Your task to perform on an android device: open wifi settings Image 0: 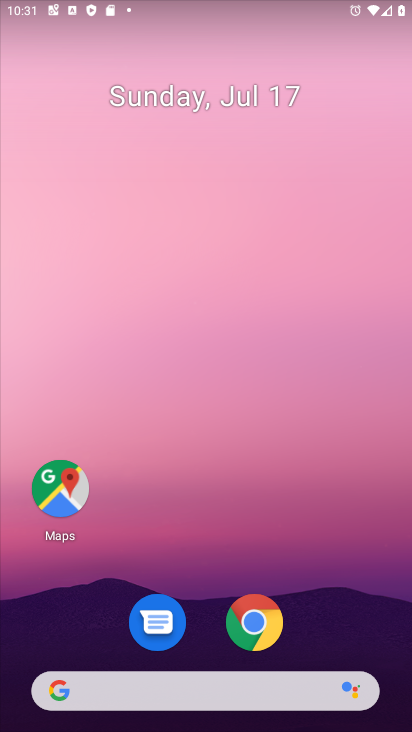
Step 0: drag from (109, 725) to (164, 80)
Your task to perform on an android device: open wifi settings Image 1: 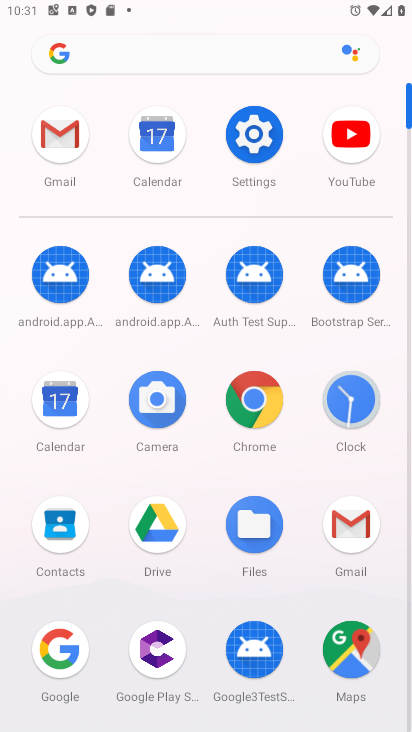
Step 1: click (259, 138)
Your task to perform on an android device: open wifi settings Image 2: 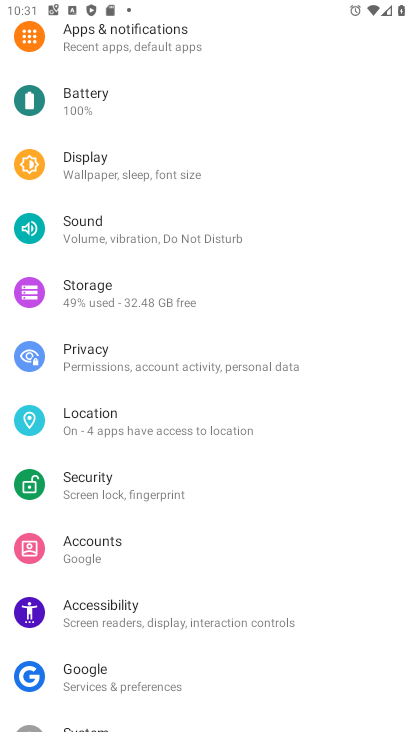
Step 2: drag from (267, 114) to (380, 679)
Your task to perform on an android device: open wifi settings Image 3: 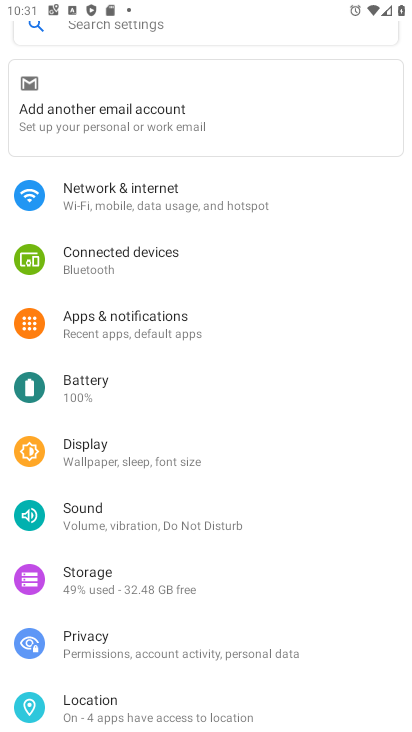
Step 3: click (234, 200)
Your task to perform on an android device: open wifi settings Image 4: 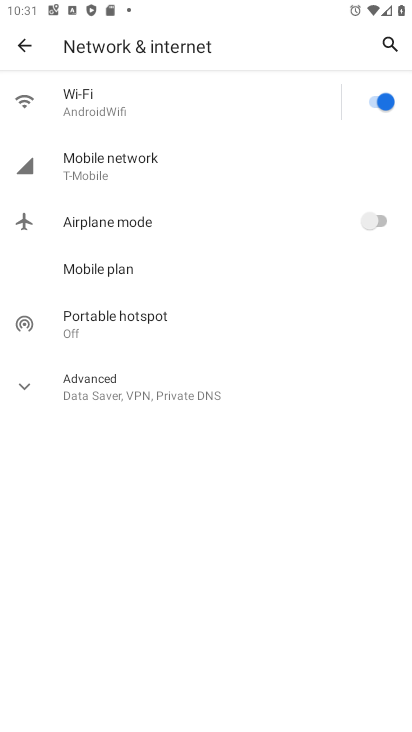
Step 4: click (256, 93)
Your task to perform on an android device: open wifi settings Image 5: 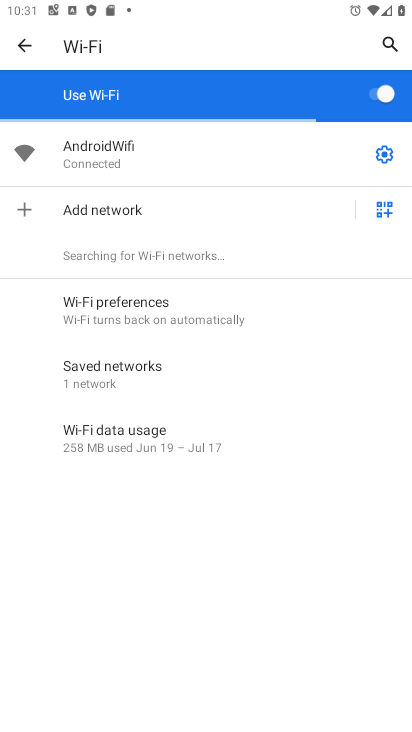
Step 5: click (385, 147)
Your task to perform on an android device: open wifi settings Image 6: 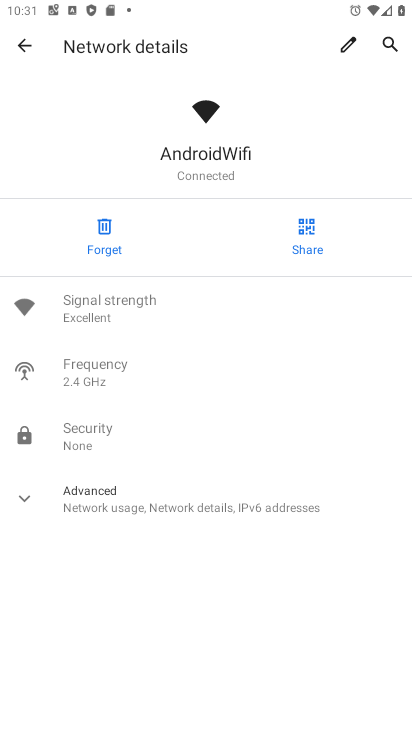
Step 6: task complete